Your task to perform on an android device: empty trash in the gmail app Image 0: 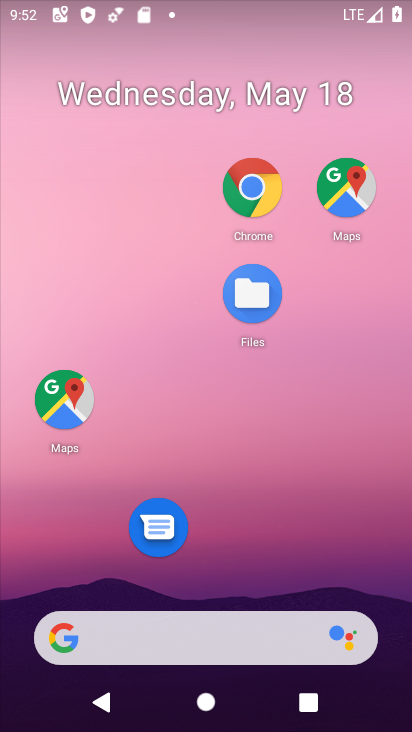
Step 0: drag from (268, 523) to (246, 150)
Your task to perform on an android device: empty trash in the gmail app Image 1: 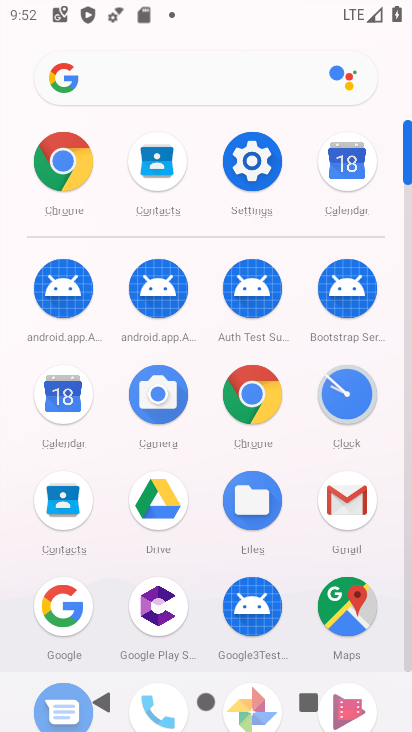
Step 1: click (331, 502)
Your task to perform on an android device: empty trash in the gmail app Image 2: 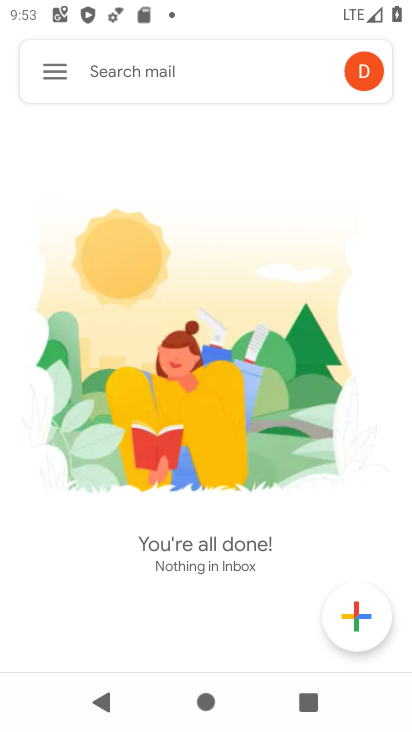
Step 2: click (57, 70)
Your task to perform on an android device: empty trash in the gmail app Image 3: 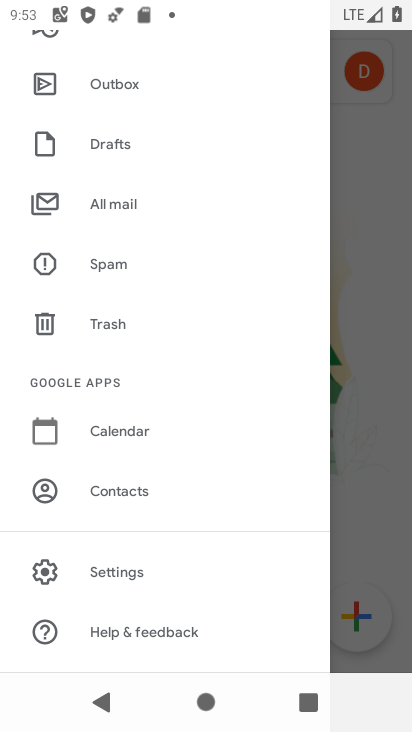
Step 3: click (87, 334)
Your task to perform on an android device: empty trash in the gmail app Image 4: 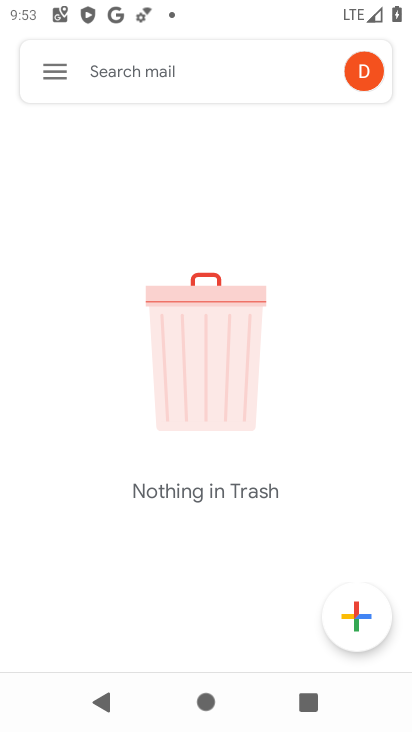
Step 4: task complete